Your task to perform on an android device: turn off data saver in the chrome app Image 0: 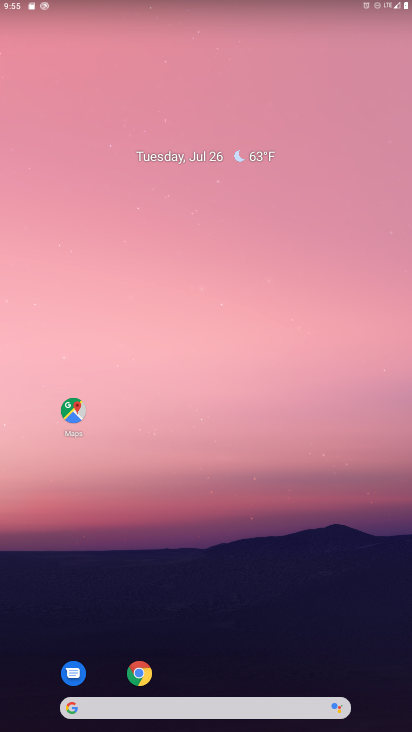
Step 0: drag from (377, 640) to (102, 57)
Your task to perform on an android device: turn off data saver in the chrome app Image 1: 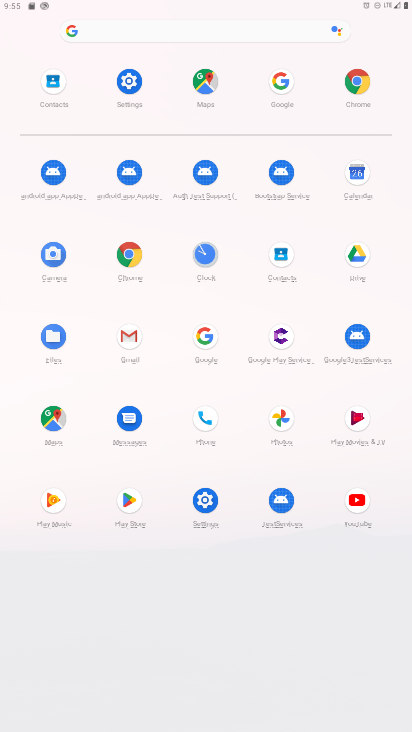
Step 1: click (117, 251)
Your task to perform on an android device: turn off data saver in the chrome app Image 2: 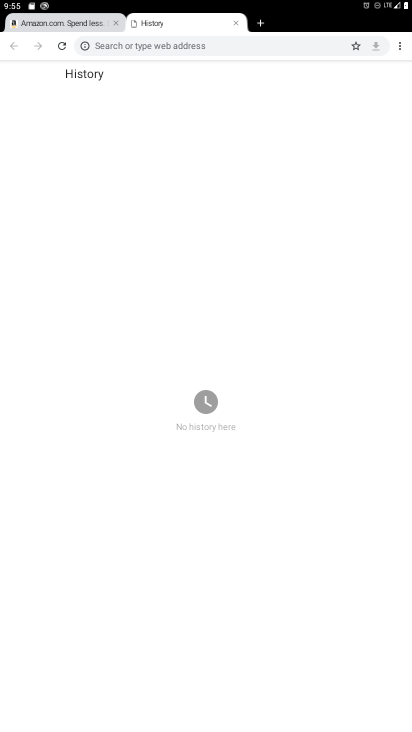
Step 2: click (400, 40)
Your task to perform on an android device: turn off data saver in the chrome app Image 3: 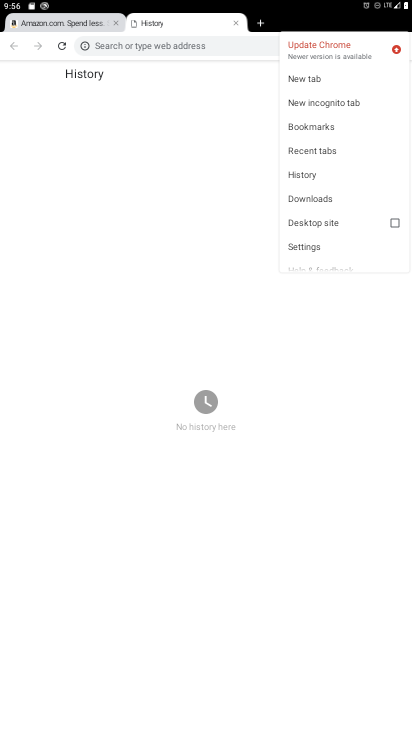
Step 3: click (312, 244)
Your task to perform on an android device: turn off data saver in the chrome app Image 4: 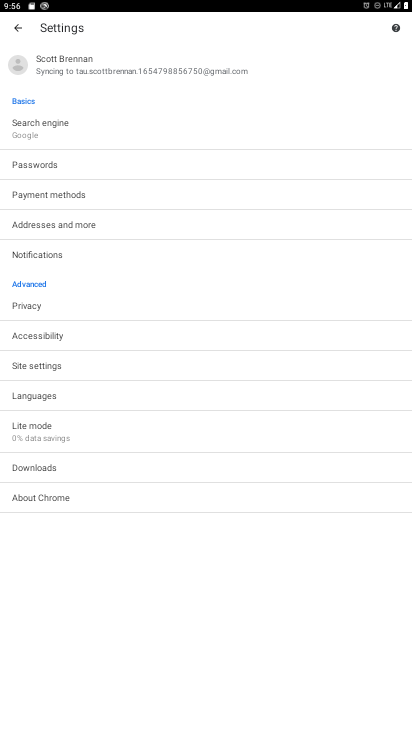
Step 4: click (51, 429)
Your task to perform on an android device: turn off data saver in the chrome app Image 5: 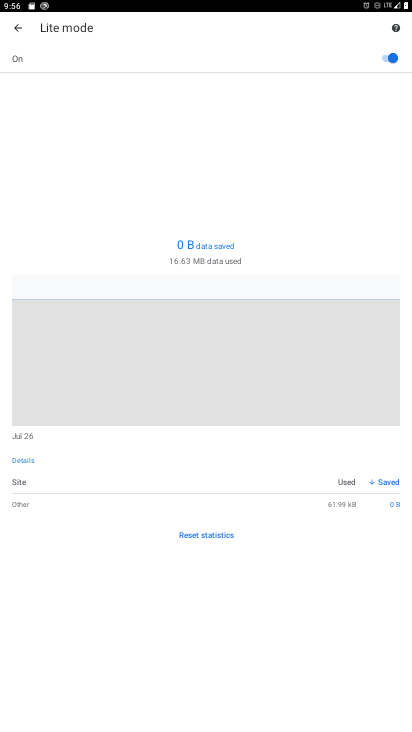
Step 5: click (375, 56)
Your task to perform on an android device: turn off data saver in the chrome app Image 6: 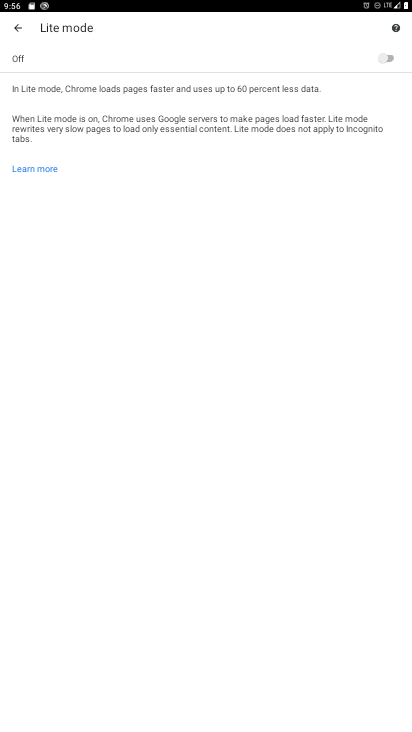
Step 6: task complete